Your task to perform on an android device: toggle notification dots Image 0: 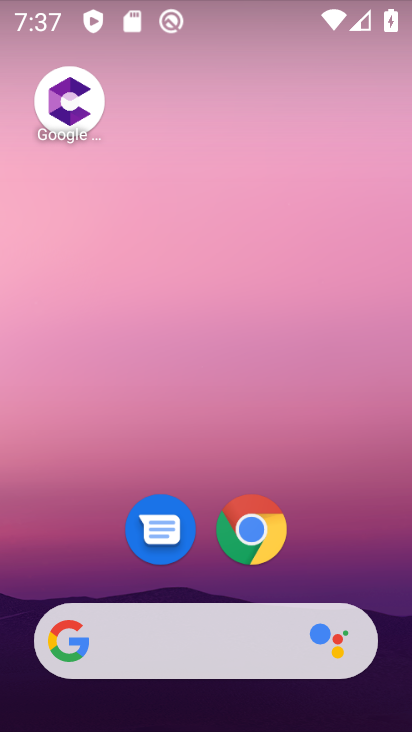
Step 0: drag from (111, 596) to (318, 143)
Your task to perform on an android device: toggle notification dots Image 1: 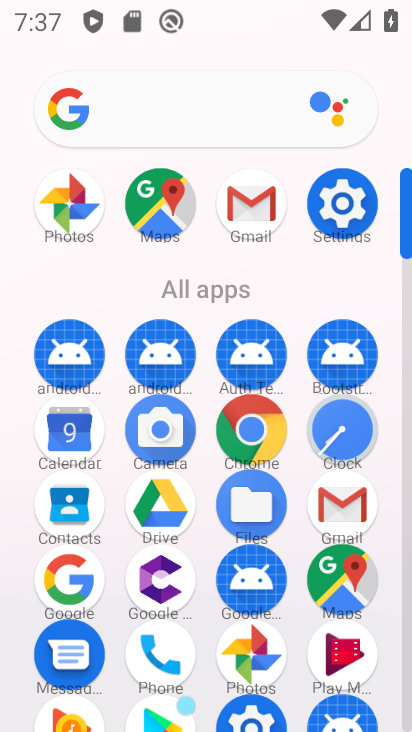
Step 1: click (319, 220)
Your task to perform on an android device: toggle notification dots Image 2: 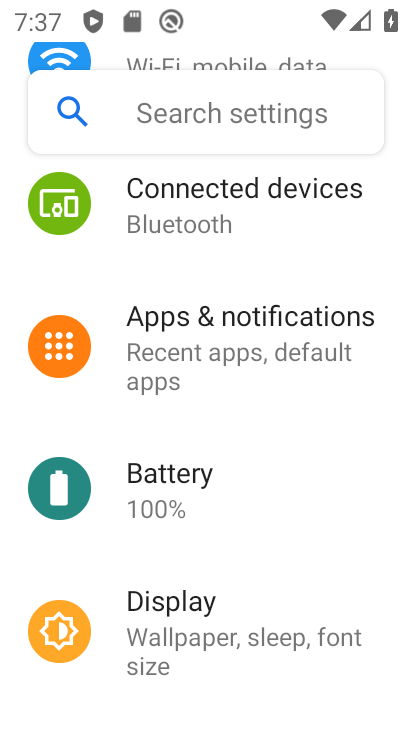
Step 2: click (236, 332)
Your task to perform on an android device: toggle notification dots Image 3: 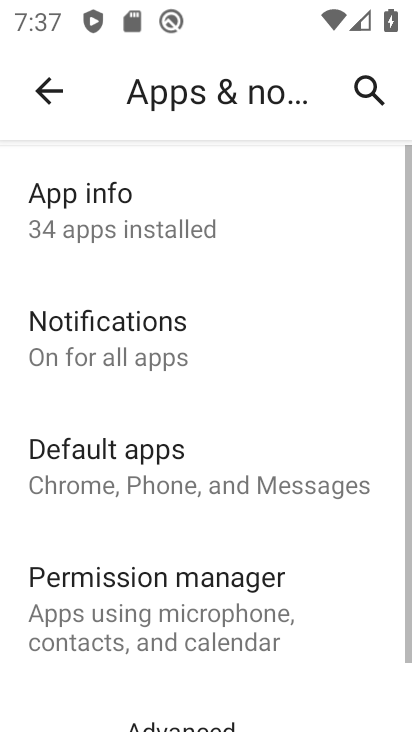
Step 3: drag from (192, 609) to (342, 257)
Your task to perform on an android device: toggle notification dots Image 4: 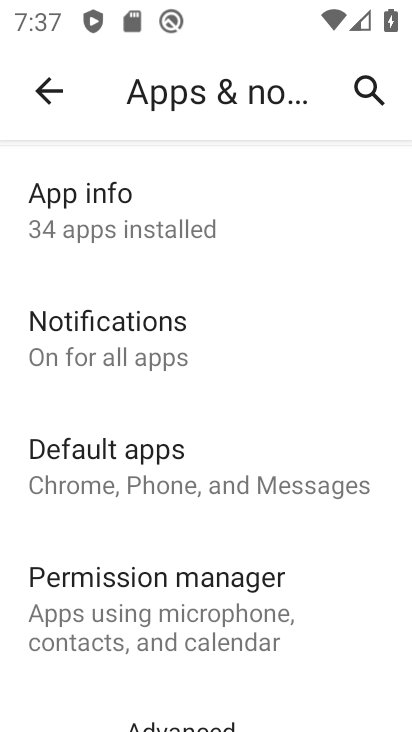
Step 4: drag from (56, 700) to (278, 193)
Your task to perform on an android device: toggle notification dots Image 5: 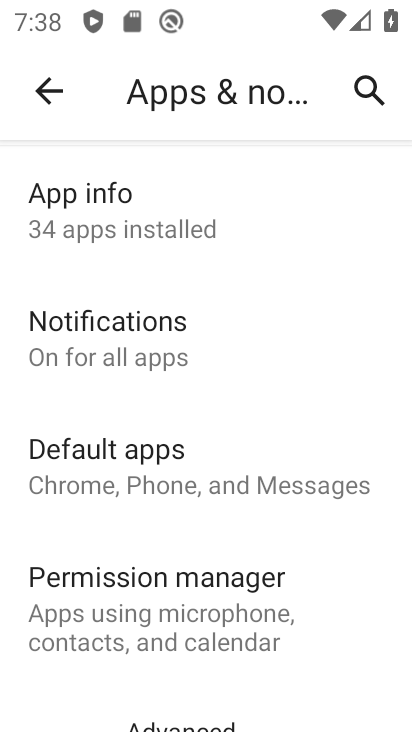
Step 5: drag from (40, 552) to (247, 241)
Your task to perform on an android device: toggle notification dots Image 6: 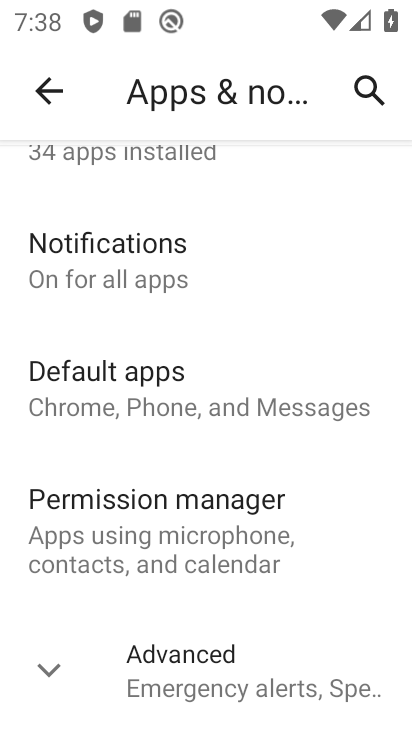
Step 6: click (222, 672)
Your task to perform on an android device: toggle notification dots Image 7: 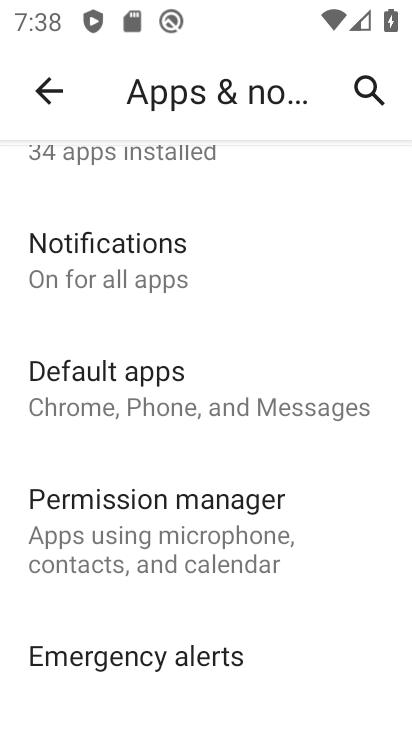
Step 7: drag from (159, 595) to (380, 174)
Your task to perform on an android device: toggle notification dots Image 8: 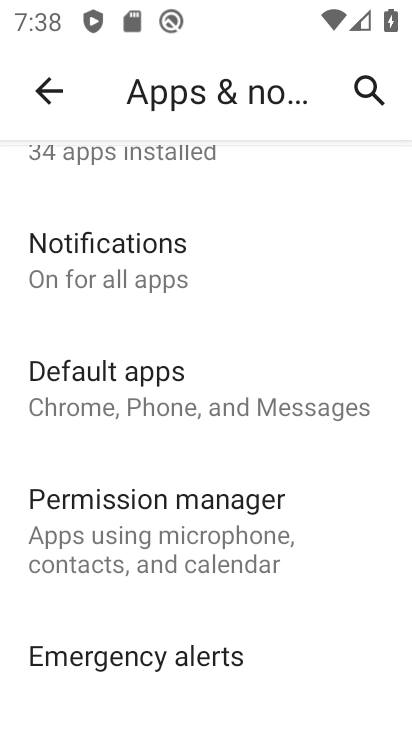
Step 8: drag from (38, 591) to (255, 250)
Your task to perform on an android device: toggle notification dots Image 9: 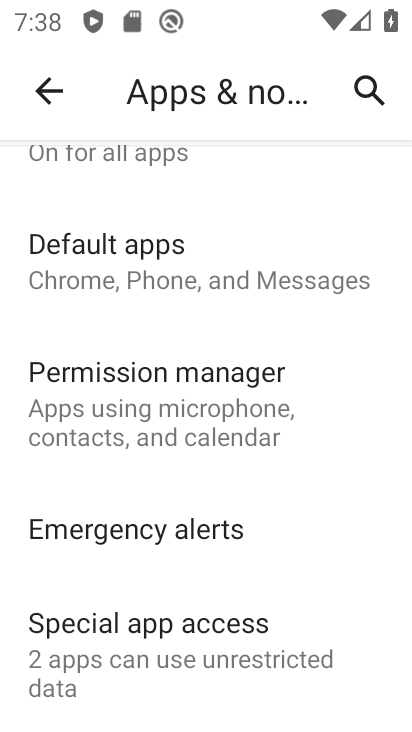
Step 9: drag from (63, 619) to (257, 264)
Your task to perform on an android device: toggle notification dots Image 10: 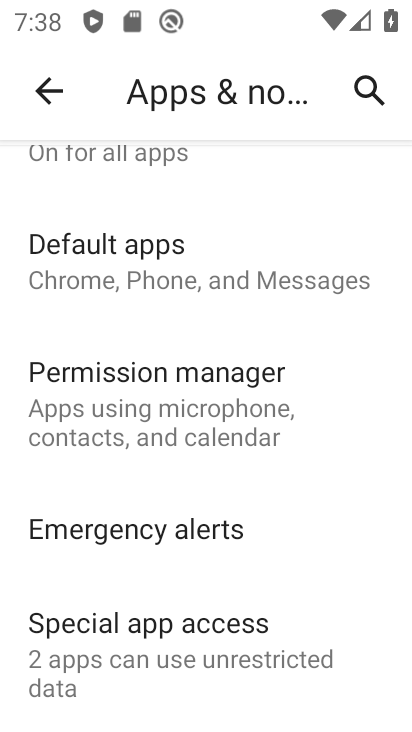
Step 10: press back button
Your task to perform on an android device: toggle notification dots Image 11: 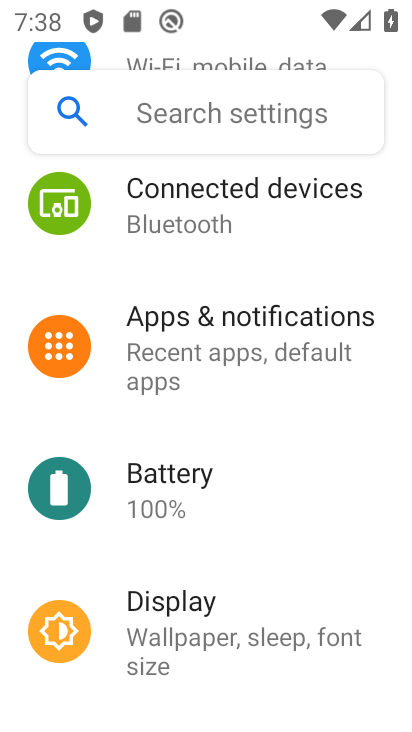
Step 11: click (221, 346)
Your task to perform on an android device: toggle notification dots Image 12: 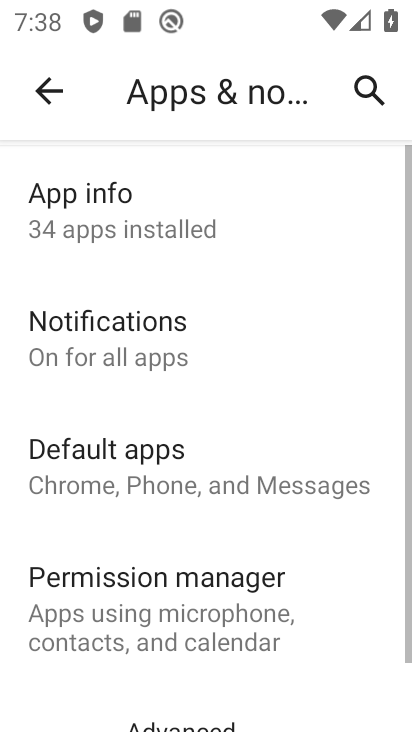
Step 12: click (217, 274)
Your task to perform on an android device: toggle notification dots Image 13: 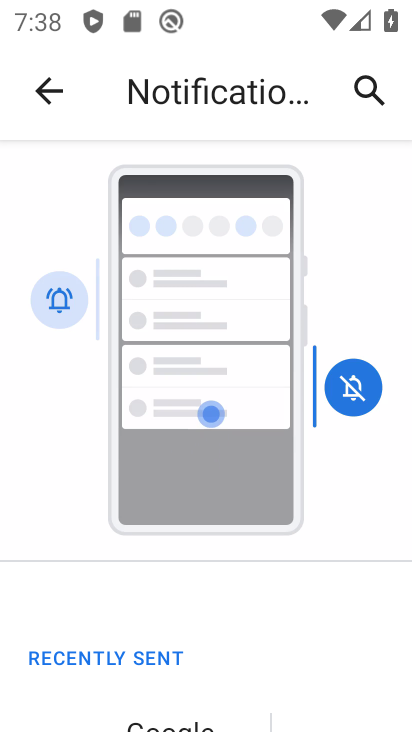
Step 13: drag from (89, 688) to (196, 274)
Your task to perform on an android device: toggle notification dots Image 14: 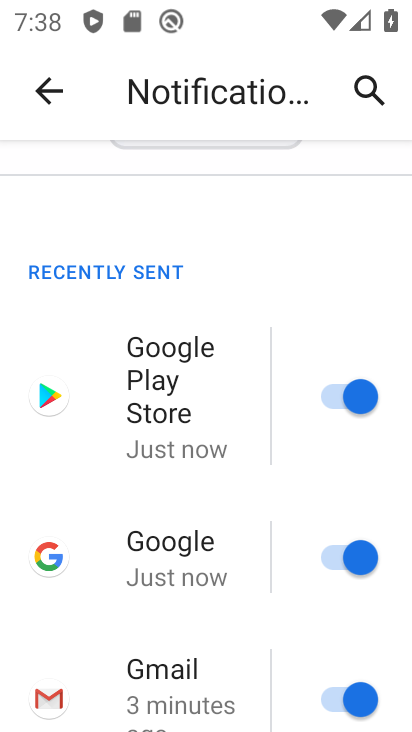
Step 14: drag from (113, 690) to (275, 266)
Your task to perform on an android device: toggle notification dots Image 15: 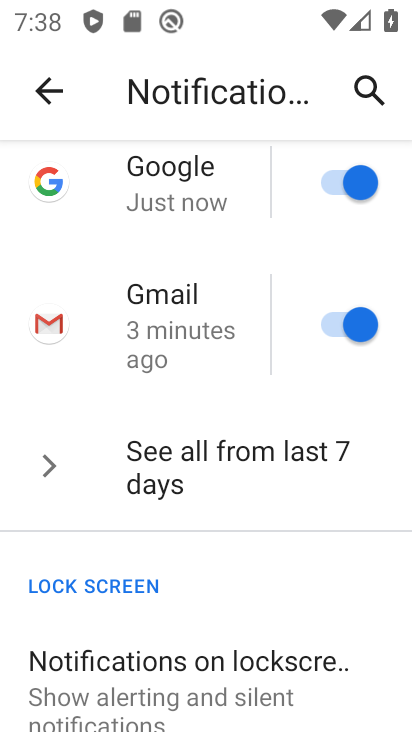
Step 15: drag from (131, 694) to (276, 343)
Your task to perform on an android device: toggle notification dots Image 16: 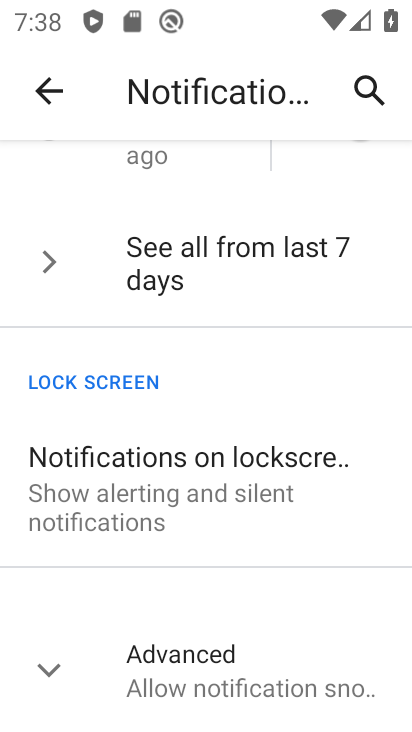
Step 16: click (211, 661)
Your task to perform on an android device: toggle notification dots Image 17: 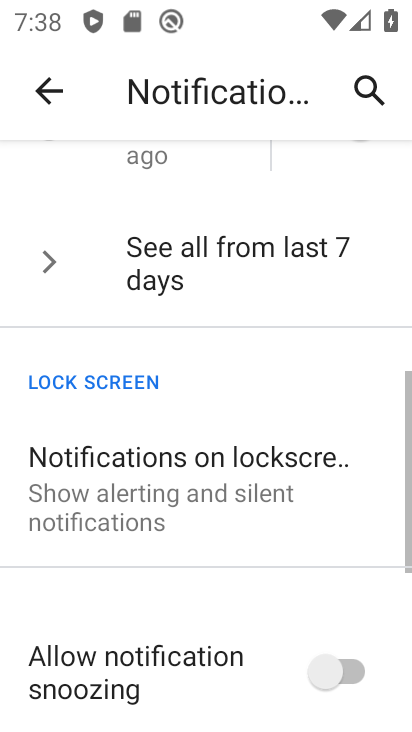
Step 17: drag from (213, 658) to (339, 226)
Your task to perform on an android device: toggle notification dots Image 18: 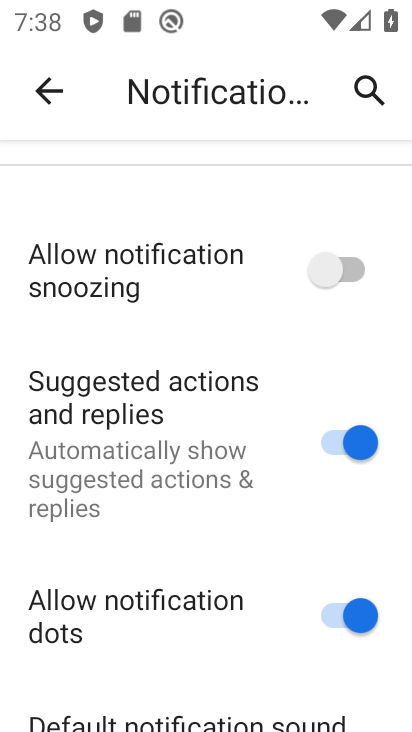
Step 18: click (360, 633)
Your task to perform on an android device: toggle notification dots Image 19: 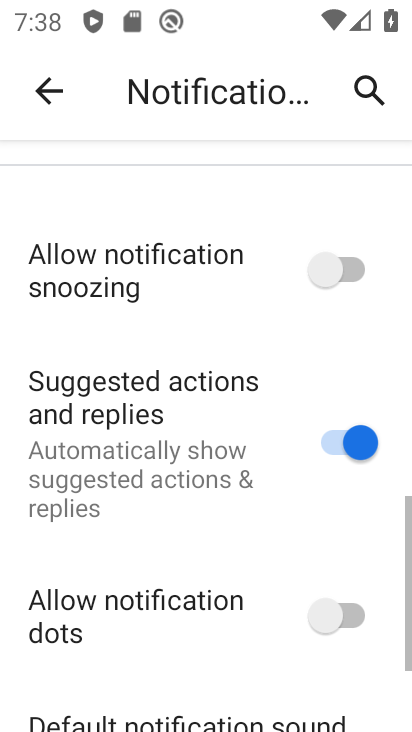
Step 19: task complete